Your task to perform on an android device: Open accessibility settings Image 0: 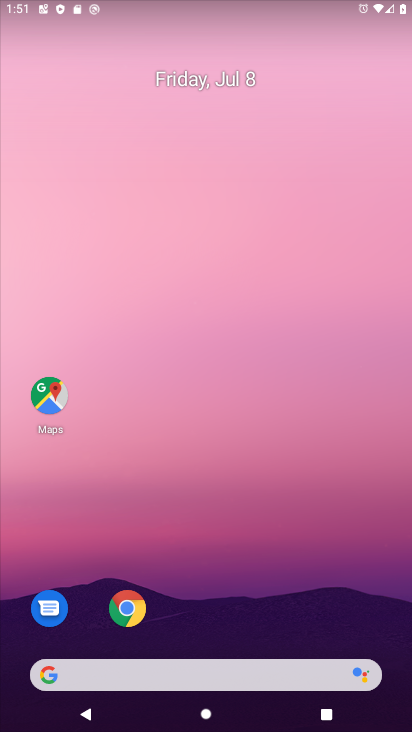
Step 0: drag from (226, 7) to (250, 622)
Your task to perform on an android device: Open accessibility settings Image 1: 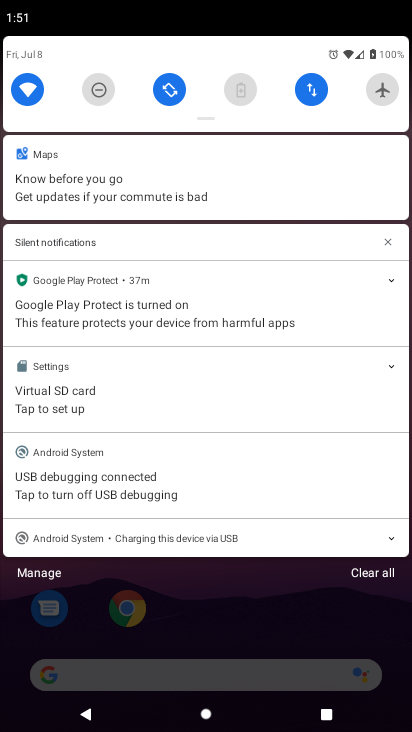
Step 1: drag from (272, 82) to (214, 675)
Your task to perform on an android device: Open accessibility settings Image 2: 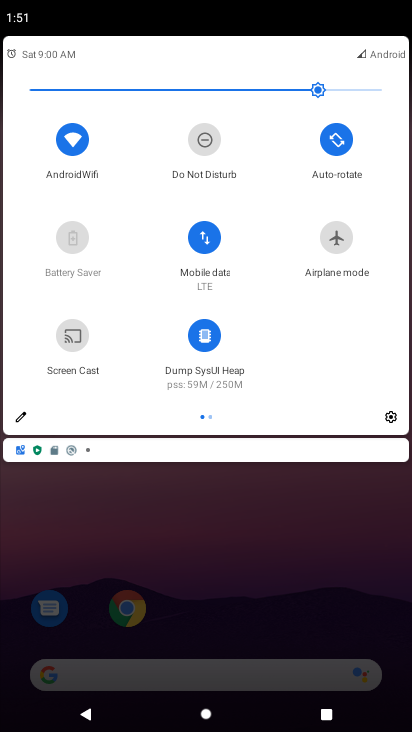
Step 2: click (388, 418)
Your task to perform on an android device: Open accessibility settings Image 3: 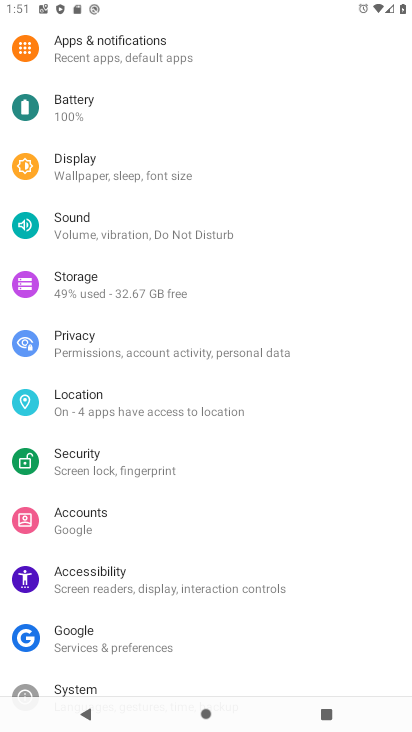
Step 3: click (134, 585)
Your task to perform on an android device: Open accessibility settings Image 4: 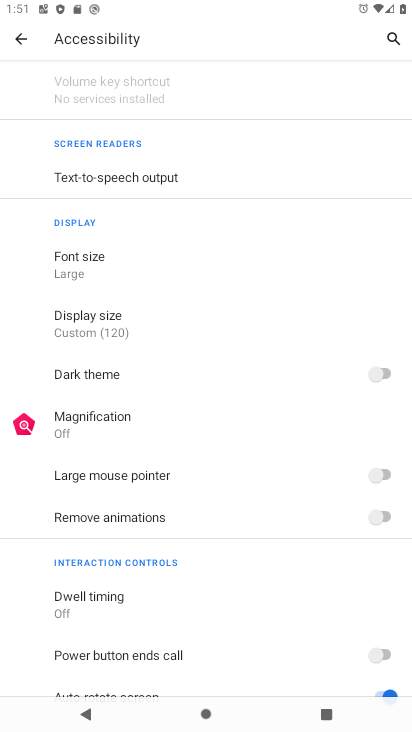
Step 4: task complete